Your task to perform on an android device: turn off location history Image 0: 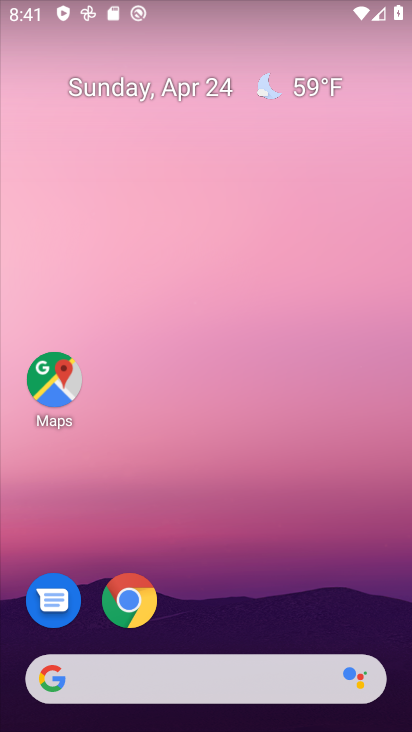
Step 0: drag from (214, 713) to (245, 80)
Your task to perform on an android device: turn off location history Image 1: 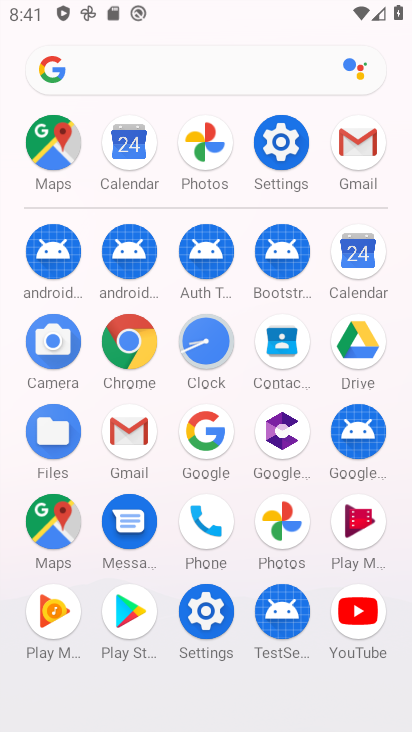
Step 1: click (281, 149)
Your task to perform on an android device: turn off location history Image 2: 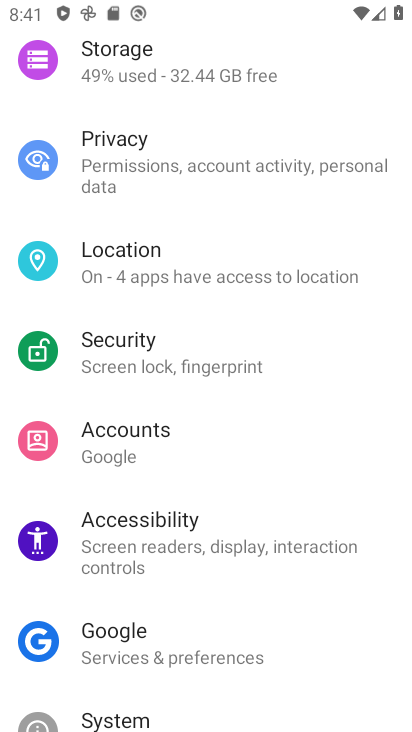
Step 2: click (123, 263)
Your task to perform on an android device: turn off location history Image 3: 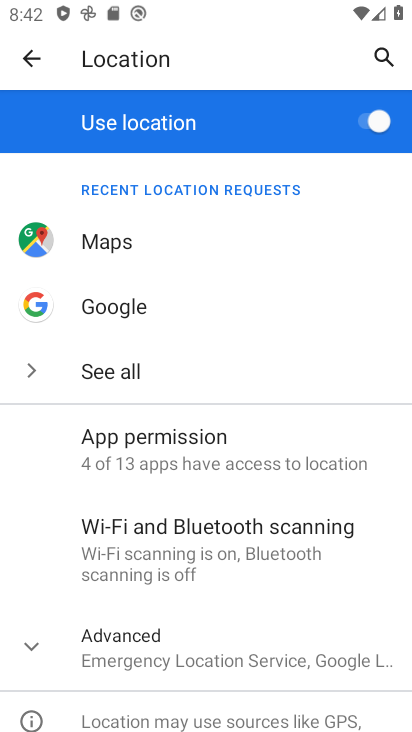
Step 3: click (130, 649)
Your task to perform on an android device: turn off location history Image 4: 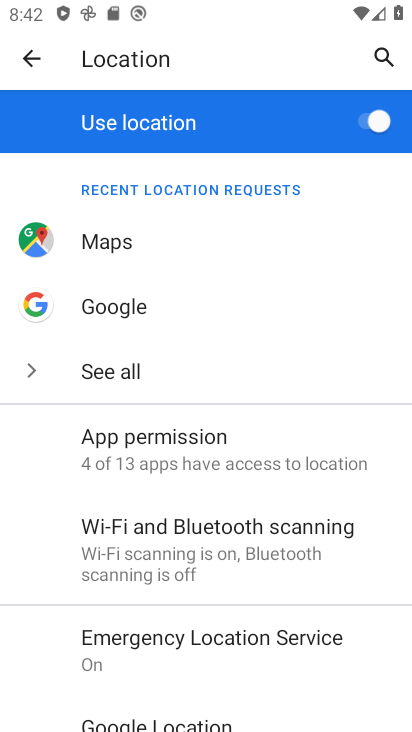
Step 4: drag from (193, 696) to (193, 358)
Your task to perform on an android device: turn off location history Image 5: 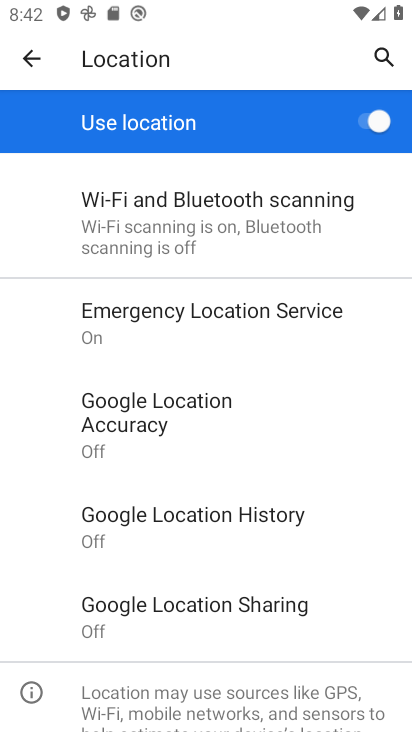
Step 5: click (198, 513)
Your task to perform on an android device: turn off location history Image 6: 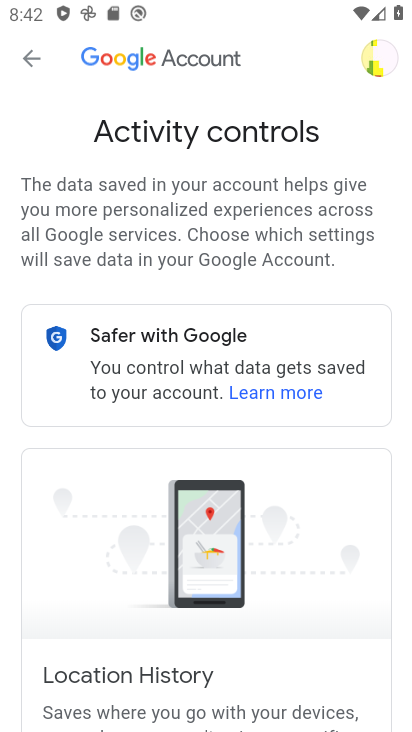
Step 6: drag from (197, 700) to (244, 347)
Your task to perform on an android device: turn off location history Image 7: 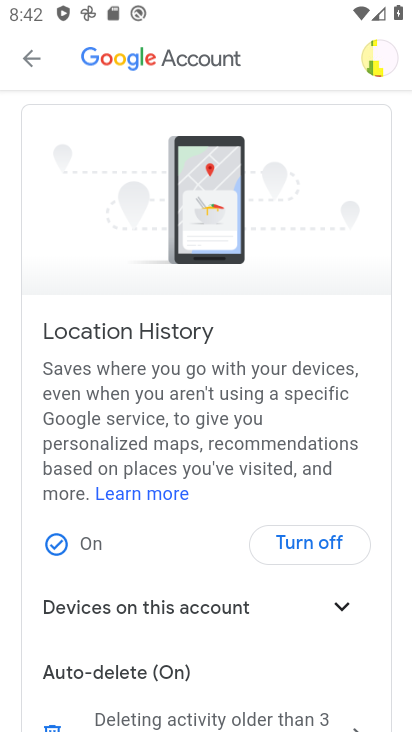
Step 7: click (315, 541)
Your task to perform on an android device: turn off location history Image 8: 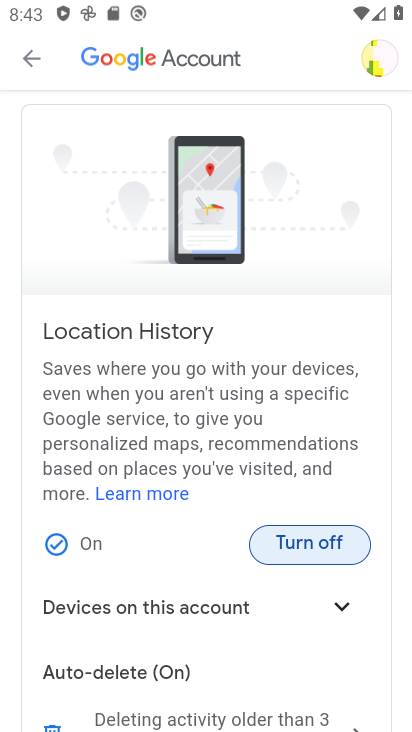
Step 8: click (316, 543)
Your task to perform on an android device: turn off location history Image 9: 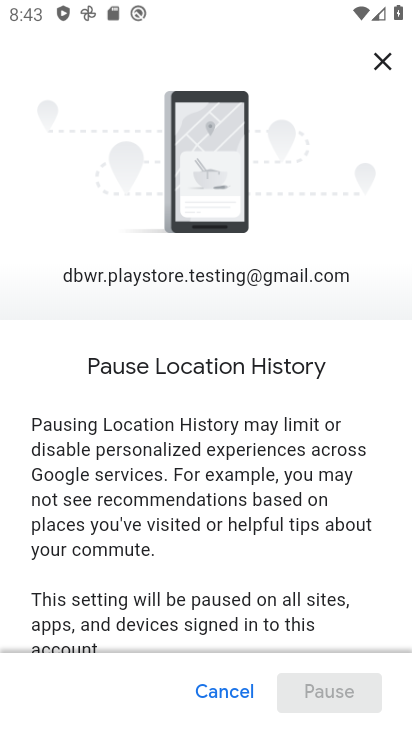
Step 9: drag from (272, 619) to (260, 368)
Your task to perform on an android device: turn off location history Image 10: 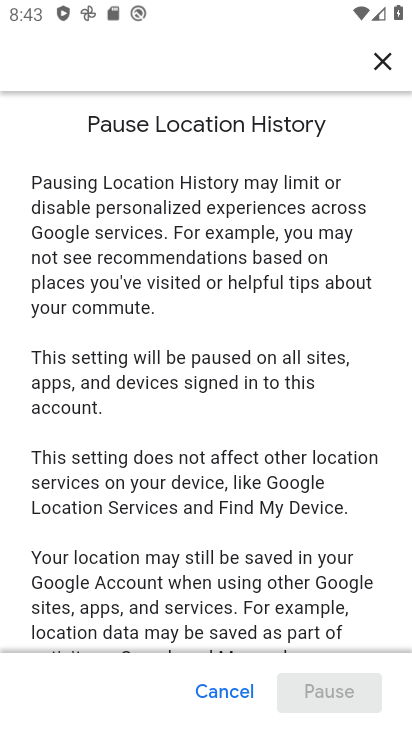
Step 10: drag from (256, 612) to (256, 325)
Your task to perform on an android device: turn off location history Image 11: 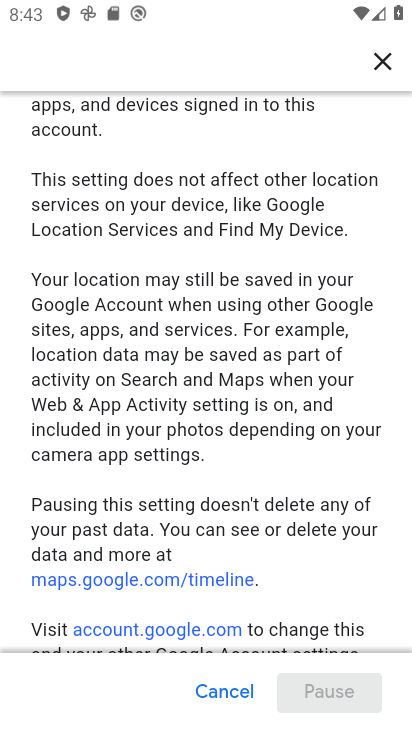
Step 11: drag from (228, 610) to (236, 258)
Your task to perform on an android device: turn off location history Image 12: 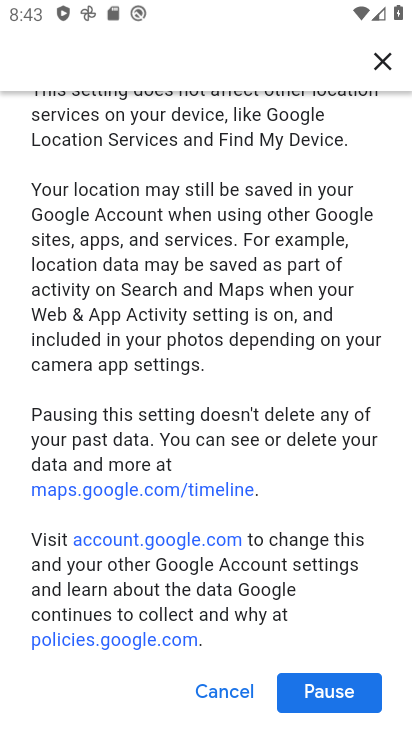
Step 12: click (335, 689)
Your task to perform on an android device: turn off location history Image 13: 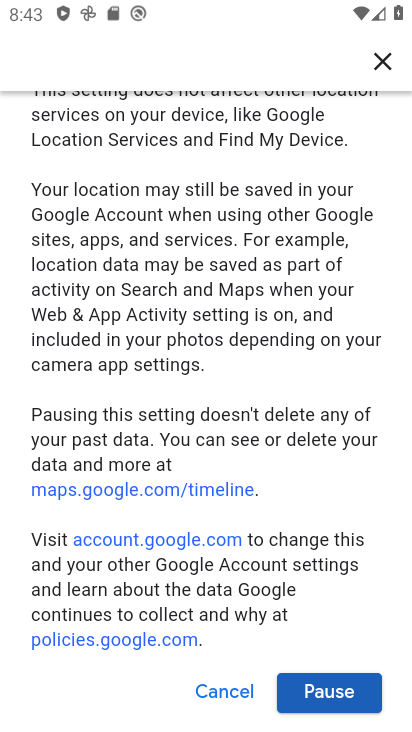
Step 13: click (349, 693)
Your task to perform on an android device: turn off location history Image 14: 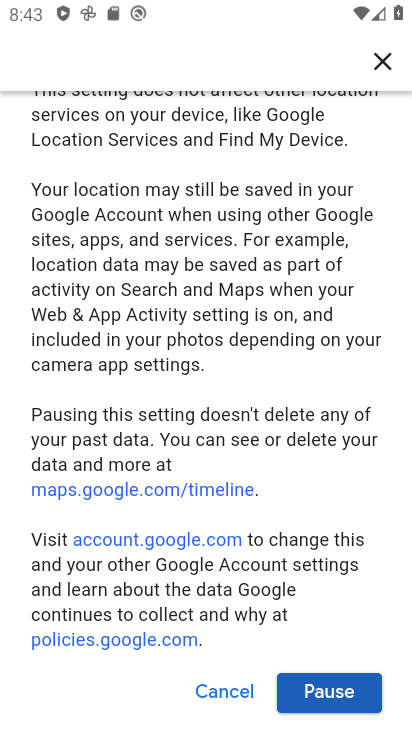
Step 14: click (315, 690)
Your task to perform on an android device: turn off location history Image 15: 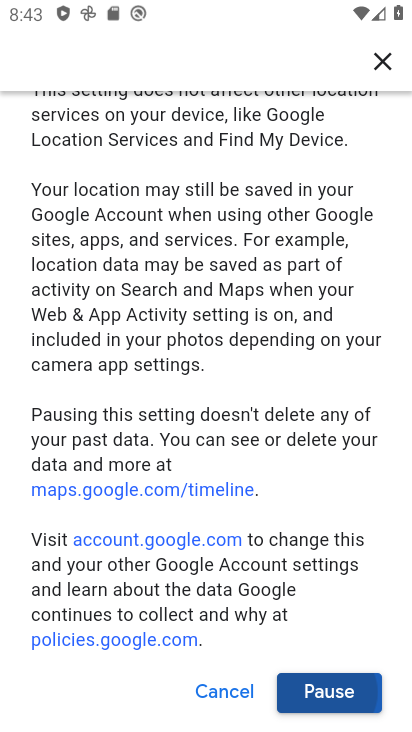
Step 15: click (319, 698)
Your task to perform on an android device: turn off location history Image 16: 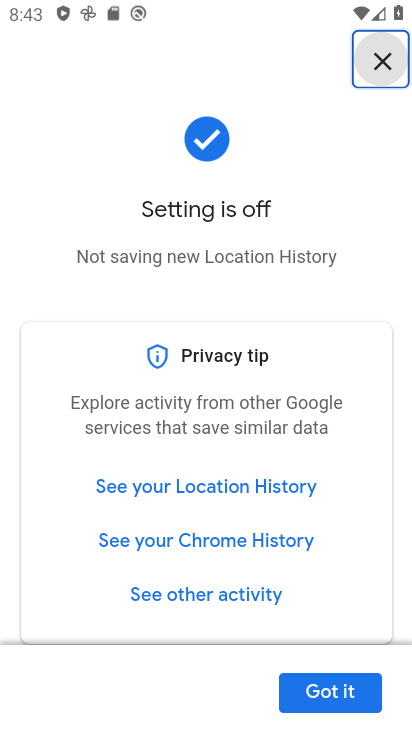
Step 16: task complete